Your task to perform on an android device: turn off notifications settings in the gmail app Image 0: 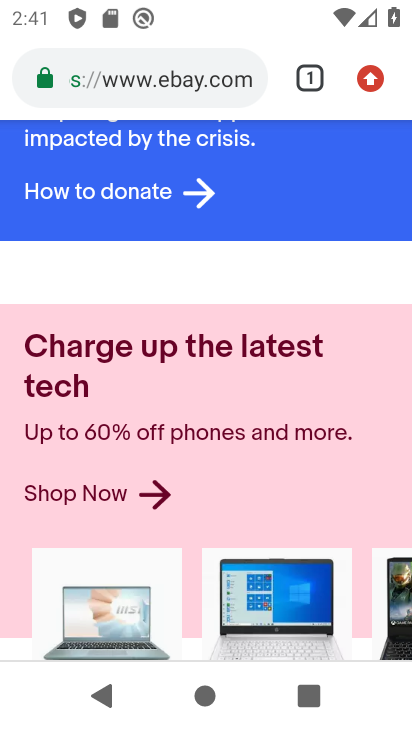
Step 0: press back button
Your task to perform on an android device: turn off notifications settings in the gmail app Image 1: 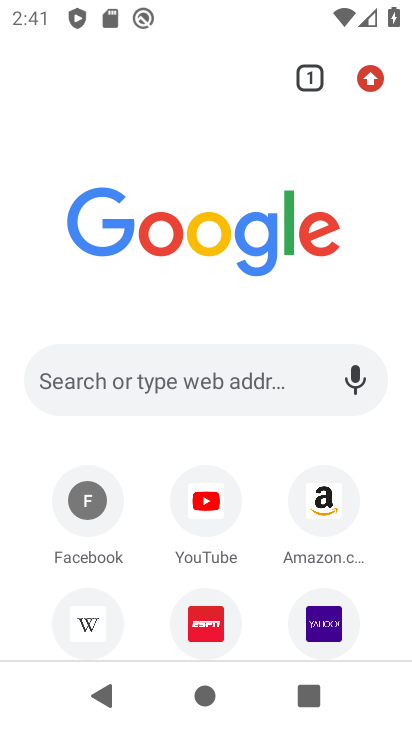
Step 1: press back button
Your task to perform on an android device: turn off notifications settings in the gmail app Image 2: 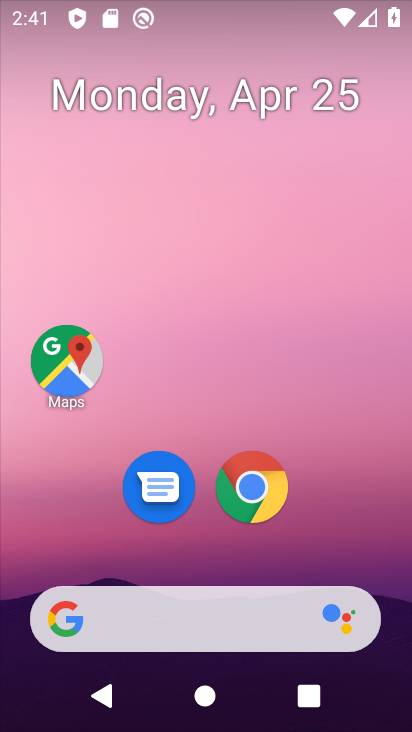
Step 2: drag from (197, 580) to (316, 22)
Your task to perform on an android device: turn off notifications settings in the gmail app Image 3: 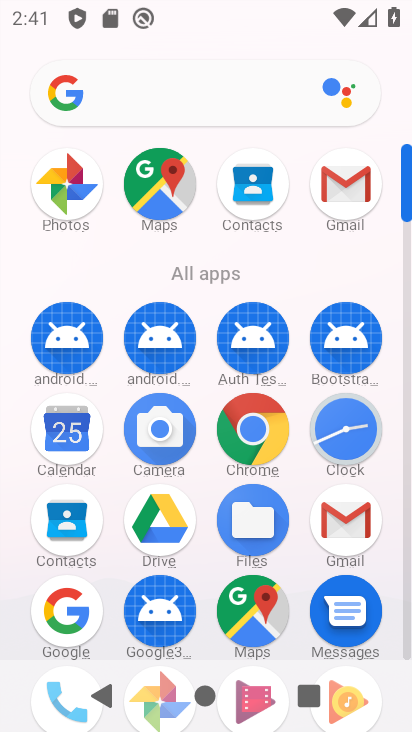
Step 3: click (338, 528)
Your task to perform on an android device: turn off notifications settings in the gmail app Image 4: 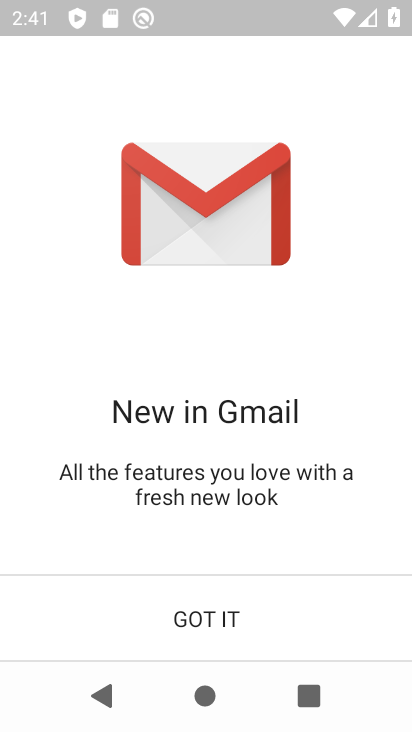
Step 4: click (241, 624)
Your task to perform on an android device: turn off notifications settings in the gmail app Image 5: 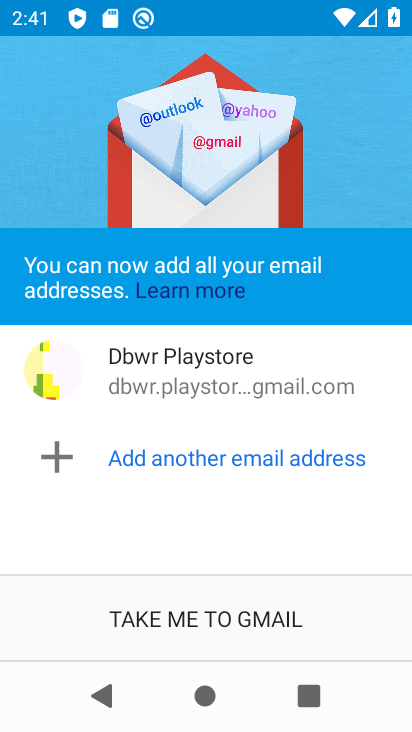
Step 5: click (243, 627)
Your task to perform on an android device: turn off notifications settings in the gmail app Image 6: 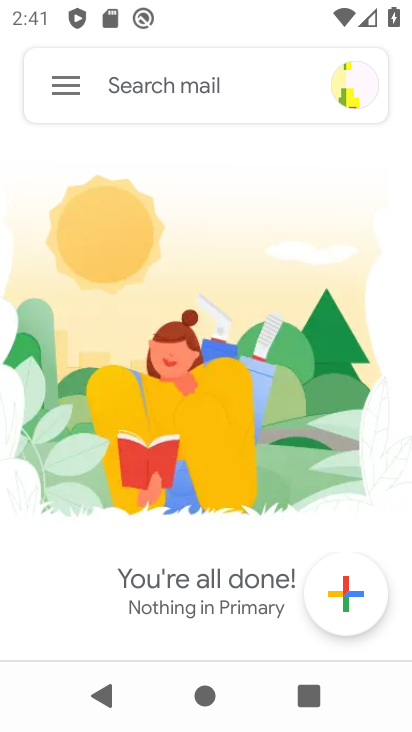
Step 6: click (53, 96)
Your task to perform on an android device: turn off notifications settings in the gmail app Image 7: 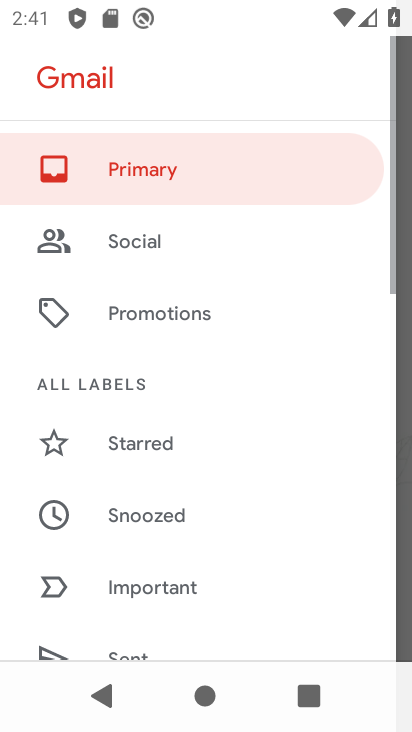
Step 7: drag from (99, 583) to (230, 145)
Your task to perform on an android device: turn off notifications settings in the gmail app Image 8: 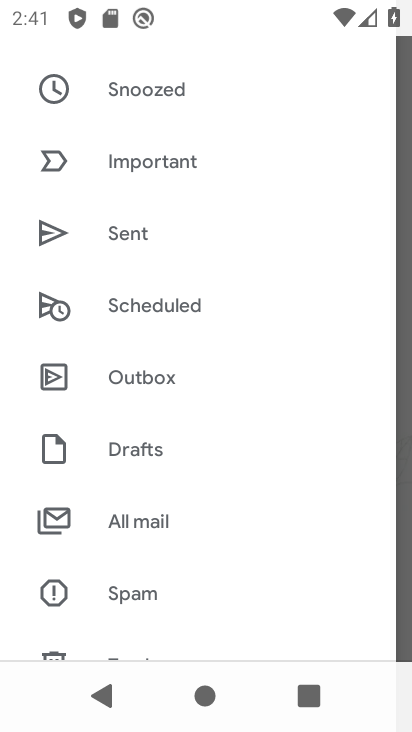
Step 8: drag from (170, 474) to (271, 123)
Your task to perform on an android device: turn off notifications settings in the gmail app Image 9: 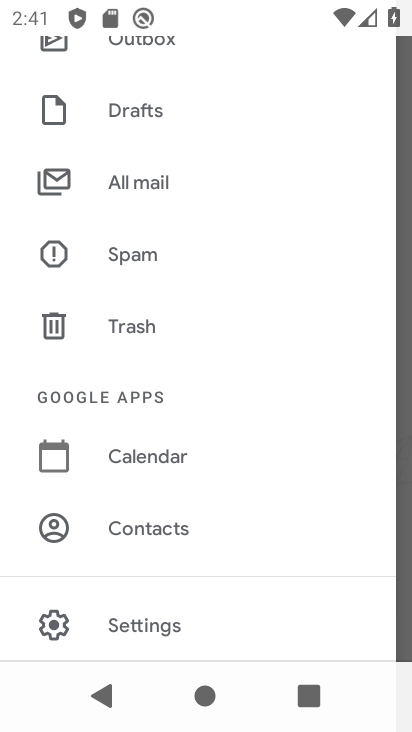
Step 9: click (128, 627)
Your task to perform on an android device: turn off notifications settings in the gmail app Image 10: 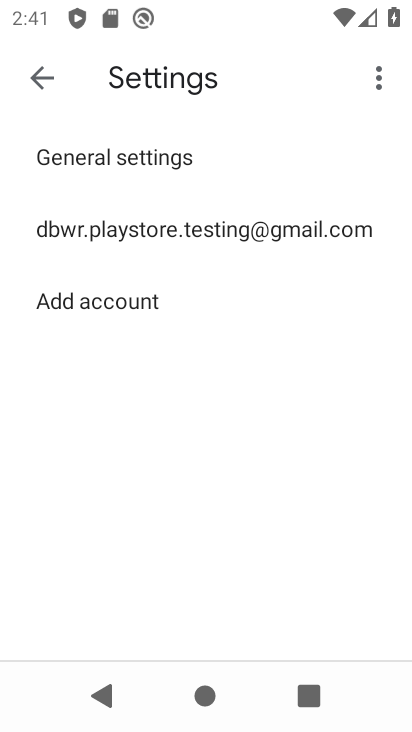
Step 10: click (288, 226)
Your task to perform on an android device: turn off notifications settings in the gmail app Image 11: 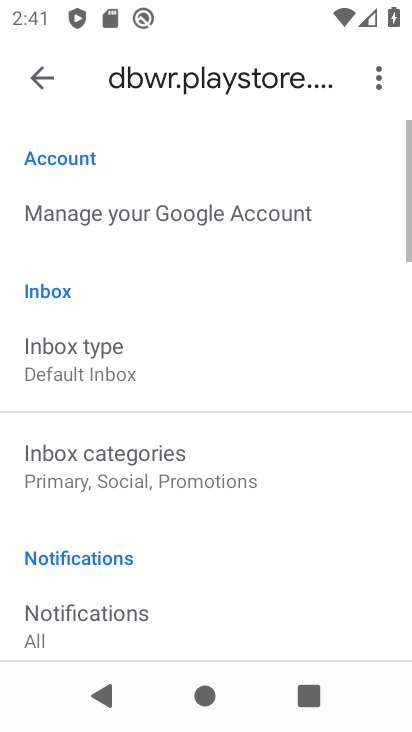
Step 11: drag from (181, 627) to (285, 179)
Your task to perform on an android device: turn off notifications settings in the gmail app Image 12: 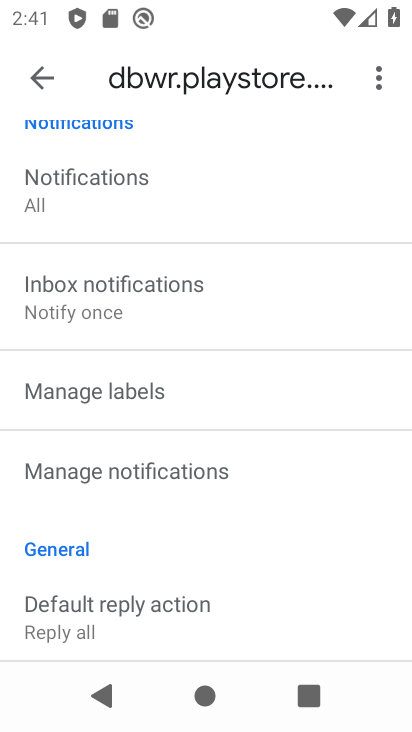
Step 12: click (168, 483)
Your task to perform on an android device: turn off notifications settings in the gmail app Image 13: 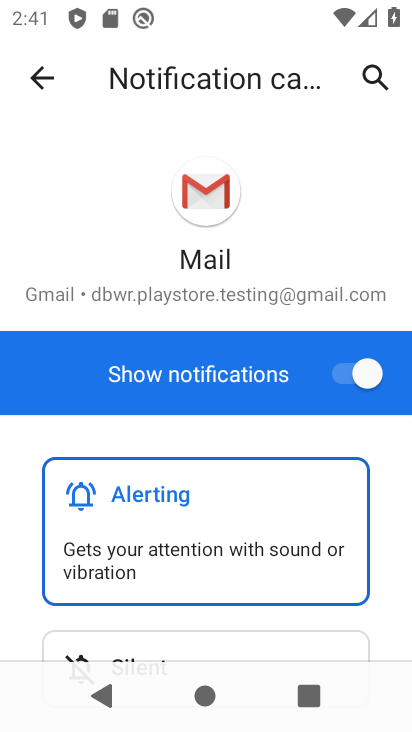
Step 13: click (343, 387)
Your task to perform on an android device: turn off notifications settings in the gmail app Image 14: 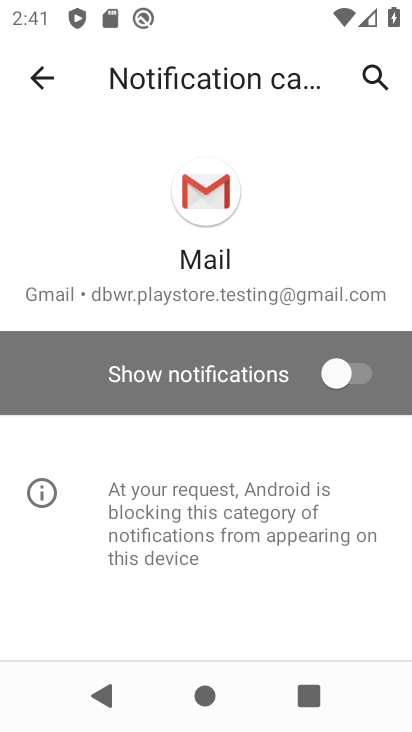
Step 14: task complete